Your task to perform on an android device: Add razer kraken to the cart on bestbuy, then select checkout. Image 0: 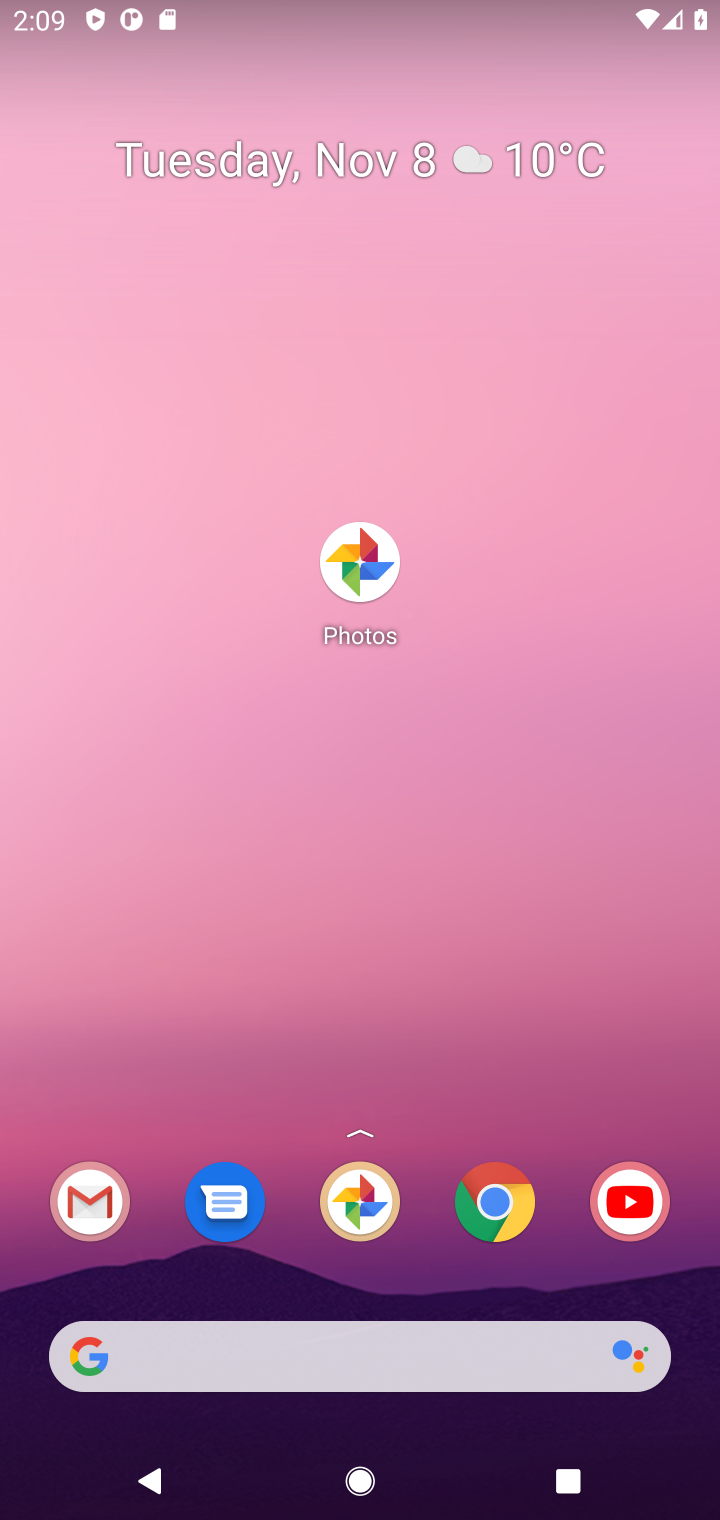
Step 0: drag from (421, 1188) to (267, 7)
Your task to perform on an android device: Add razer kraken to the cart on bestbuy, then select checkout. Image 1: 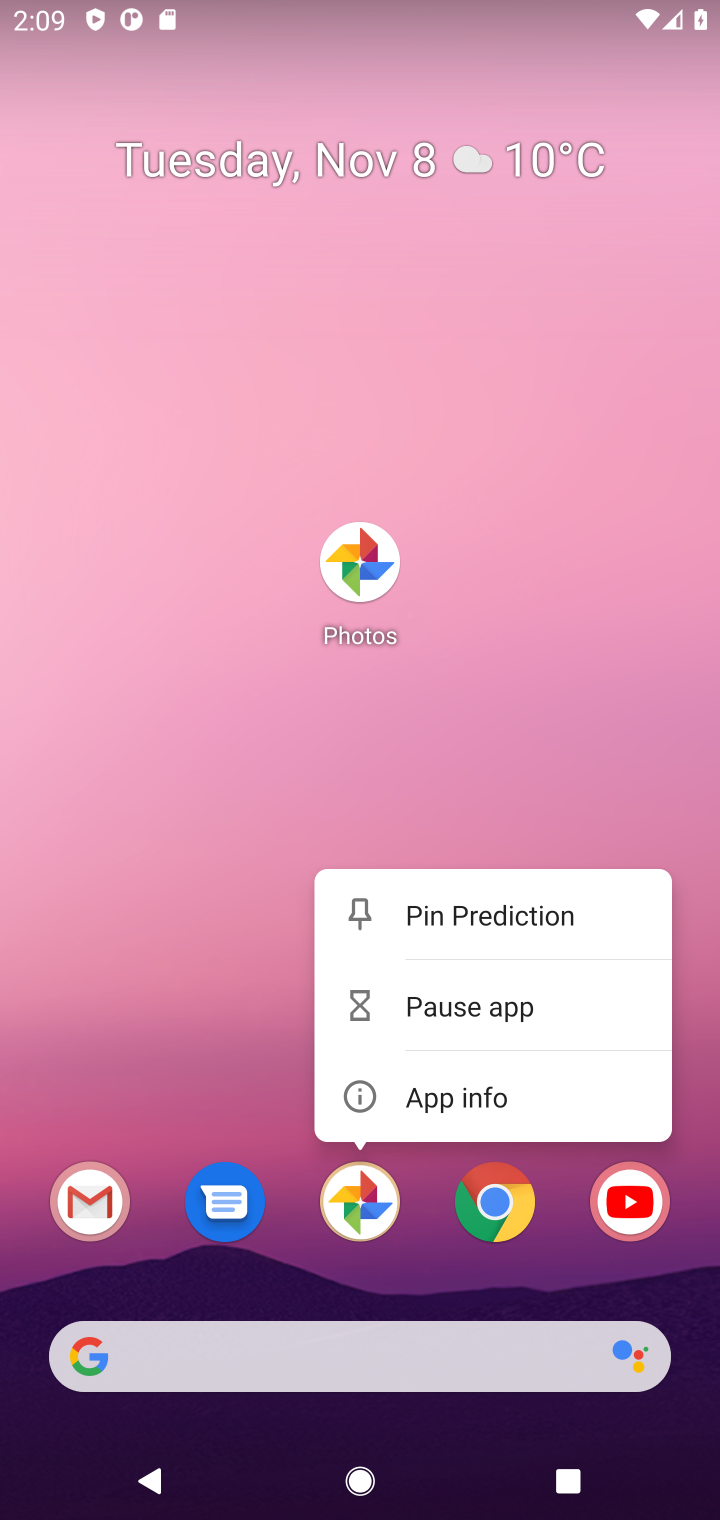
Step 1: click (140, 789)
Your task to perform on an android device: Add razer kraken to the cart on bestbuy, then select checkout. Image 2: 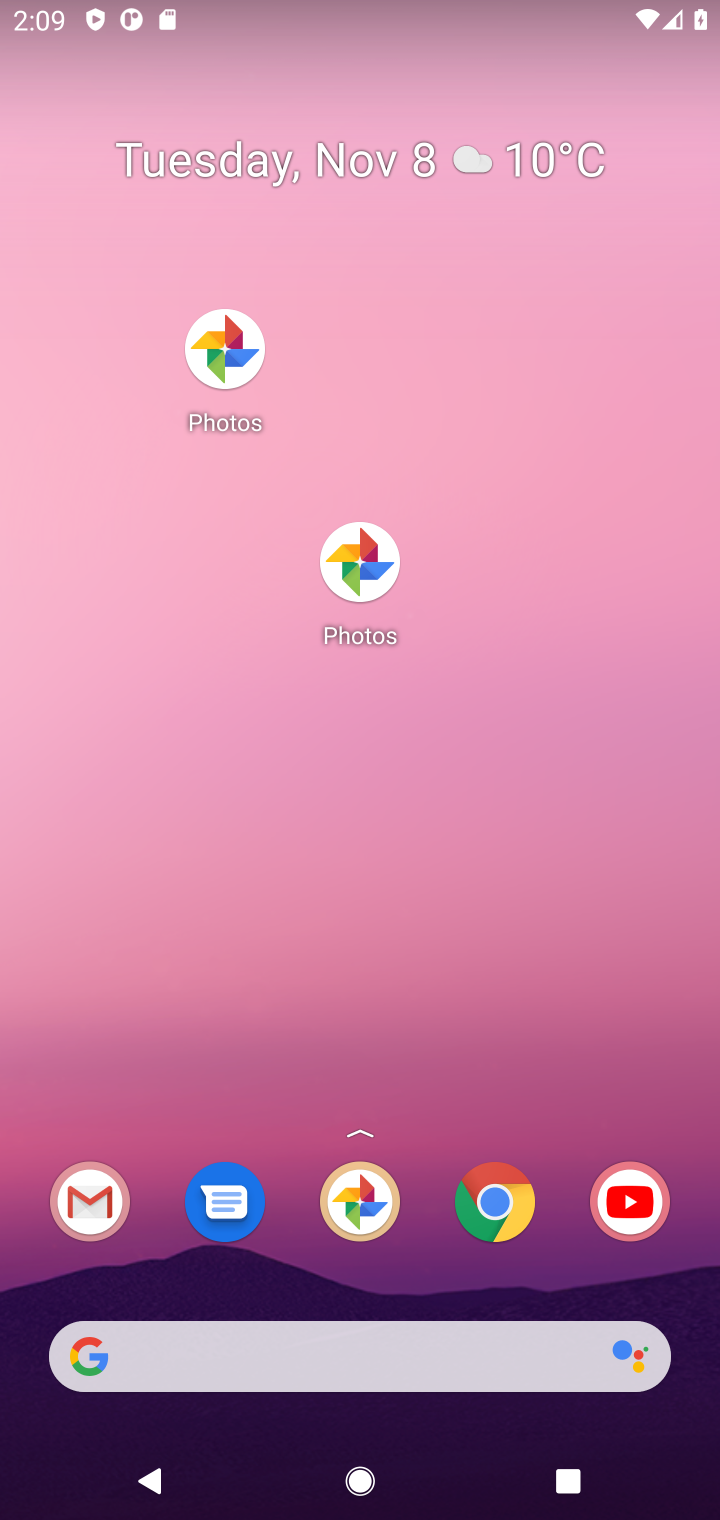
Step 2: drag from (367, 1188) to (531, 34)
Your task to perform on an android device: Add razer kraken to the cart on bestbuy, then select checkout. Image 3: 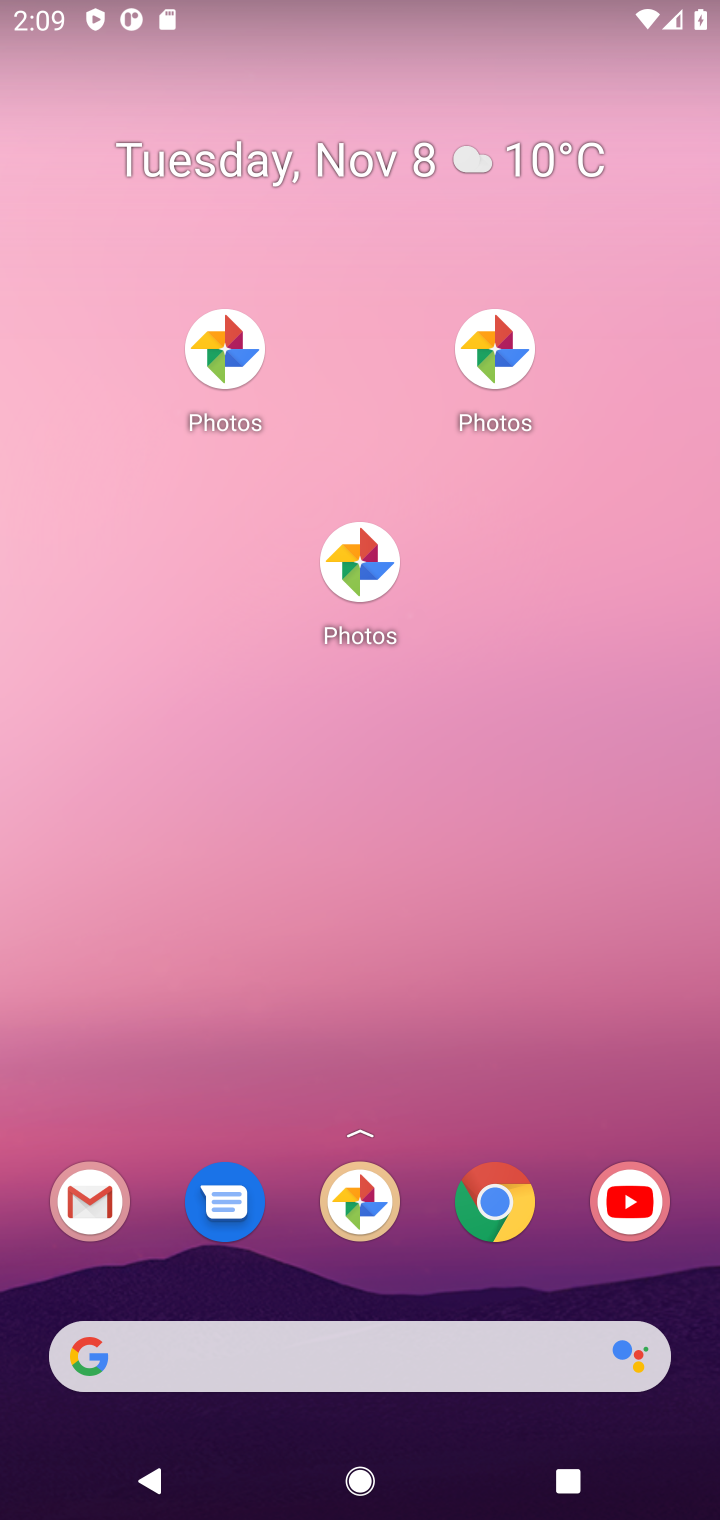
Step 3: drag from (443, 1226) to (422, 523)
Your task to perform on an android device: Add razer kraken to the cart on bestbuy, then select checkout. Image 4: 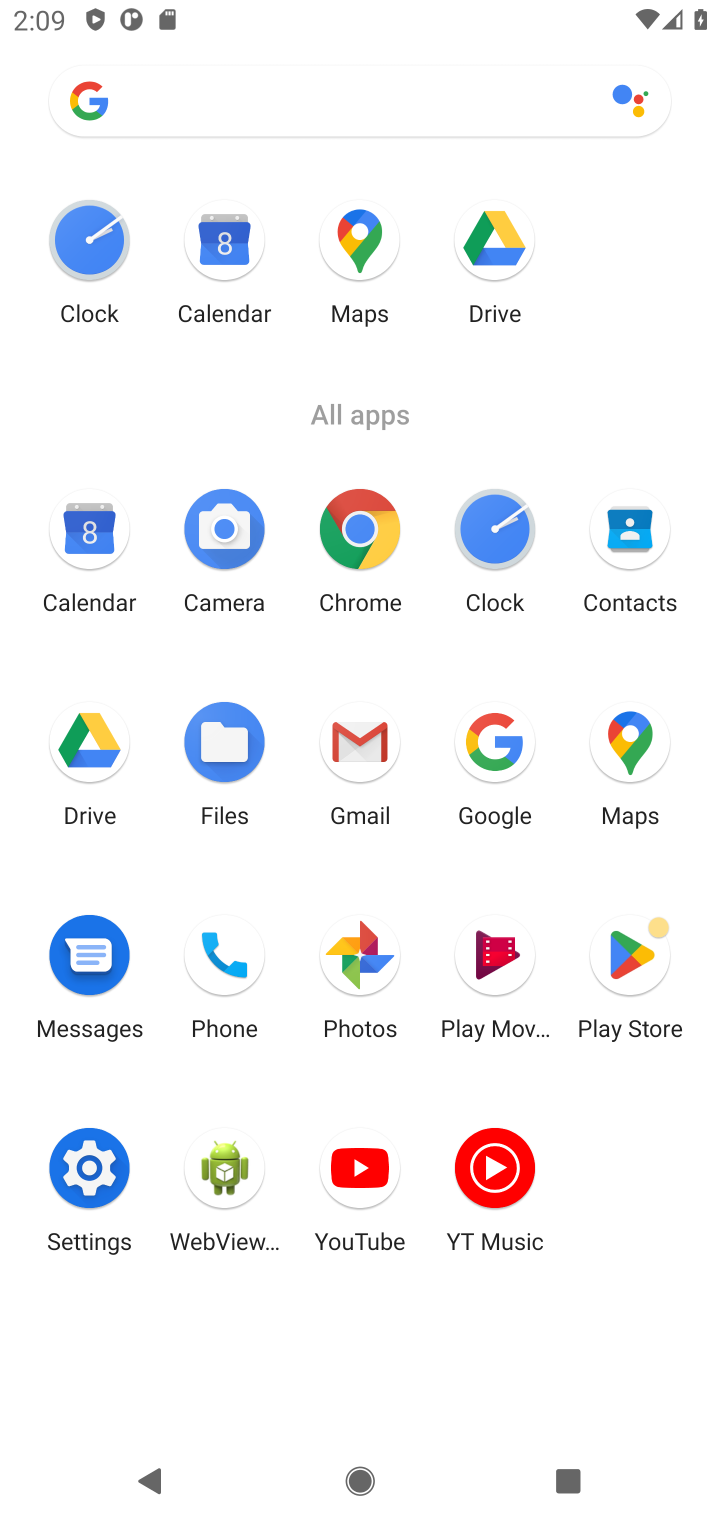
Step 4: click (505, 751)
Your task to perform on an android device: Add razer kraken to the cart on bestbuy, then select checkout. Image 5: 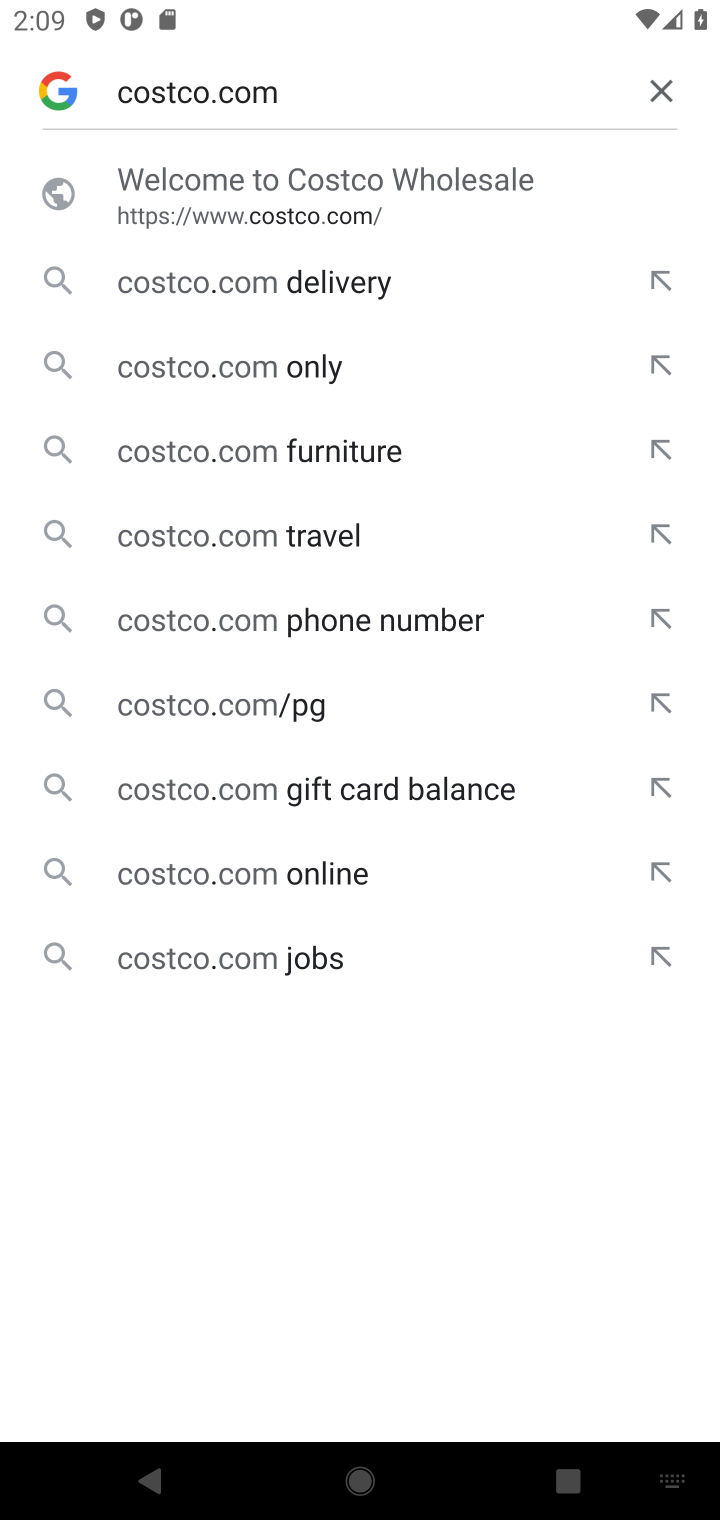
Step 5: click (678, 114)
Your task to perform on an android device: Add razer kraken to the cart on bestbuy, then select checkout. Image 6: 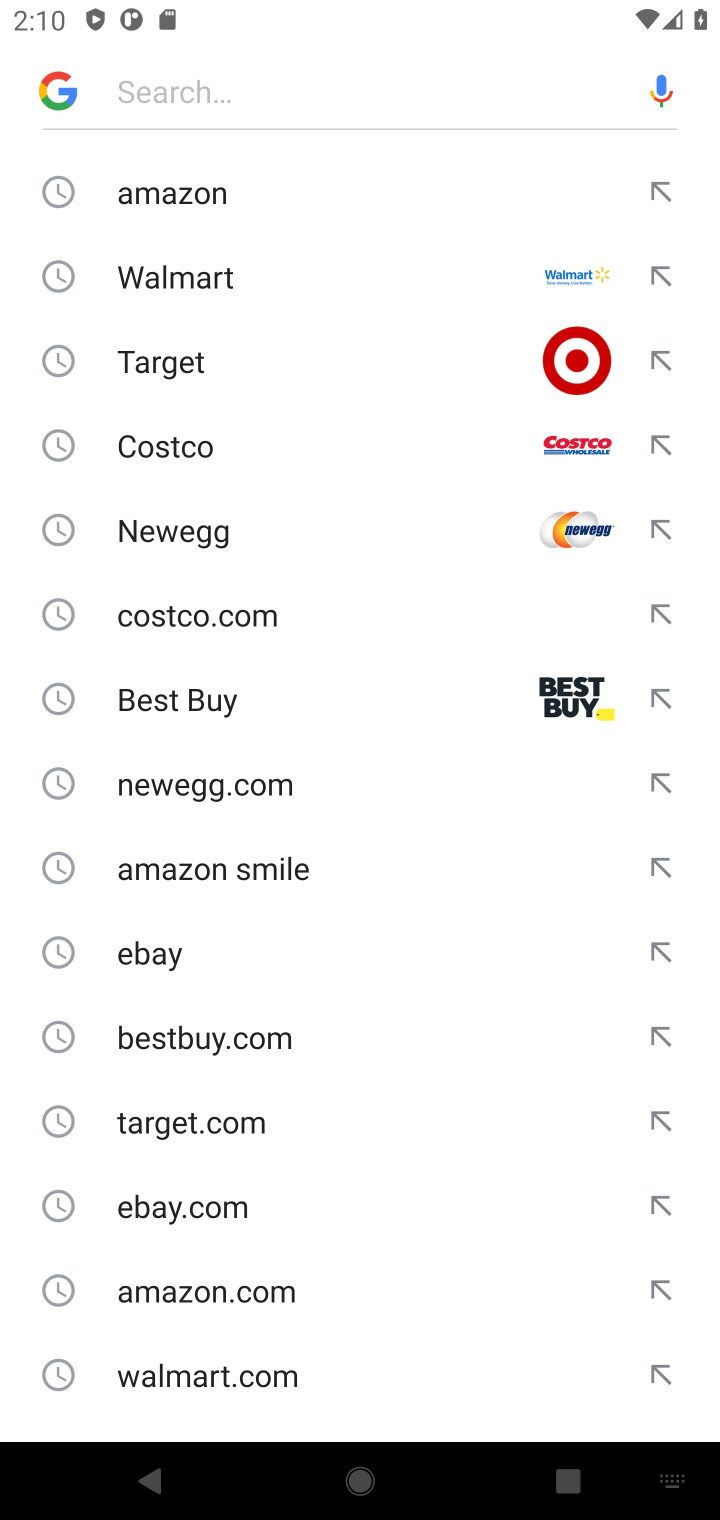
Step 6: type "bestbuy"
Your task to perform on an android device: Add razer kraken to the cart on bestbuy, then select checkout. Image 7: 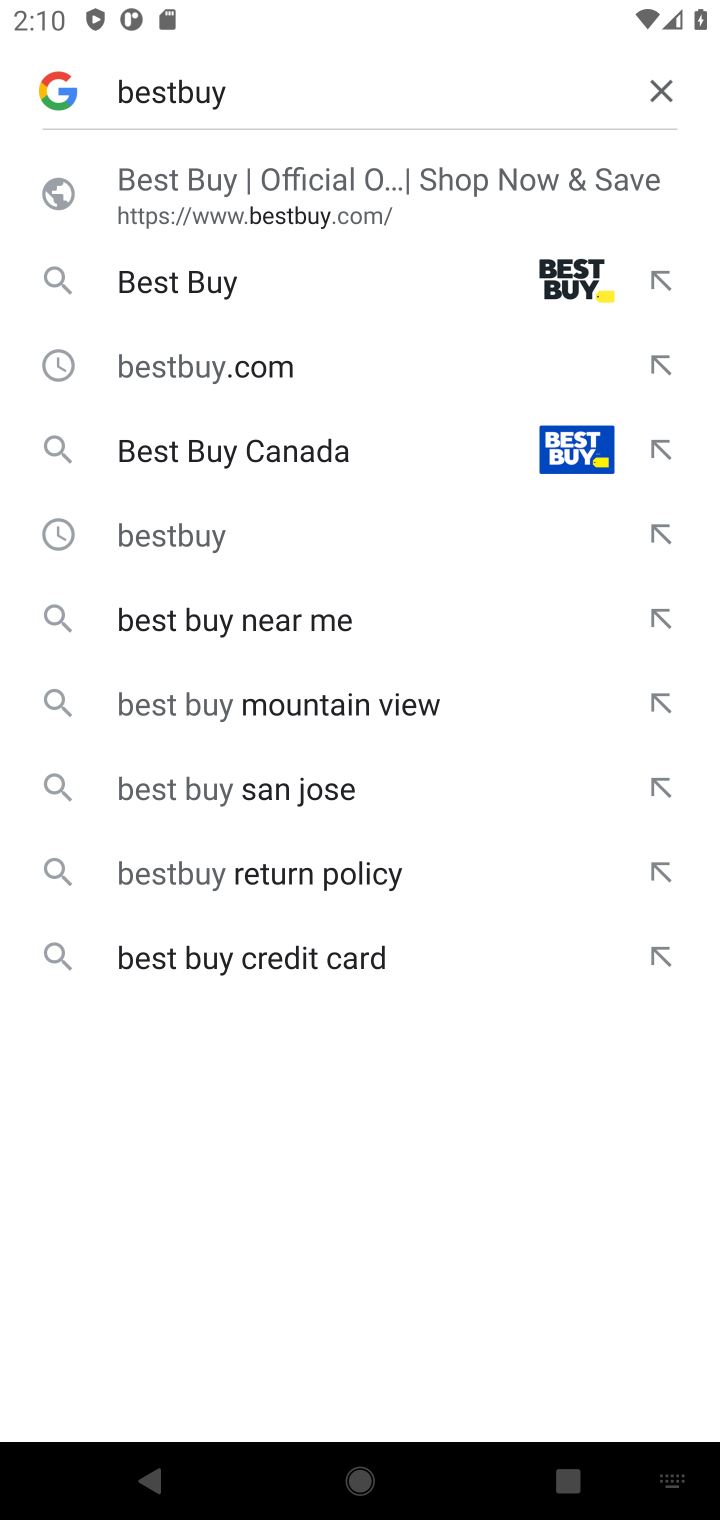
Step 7: click (392, 195)
Your task to perform on an android device: Add razer kraken to the cart on bestbuy, then select checkout. Image 8: 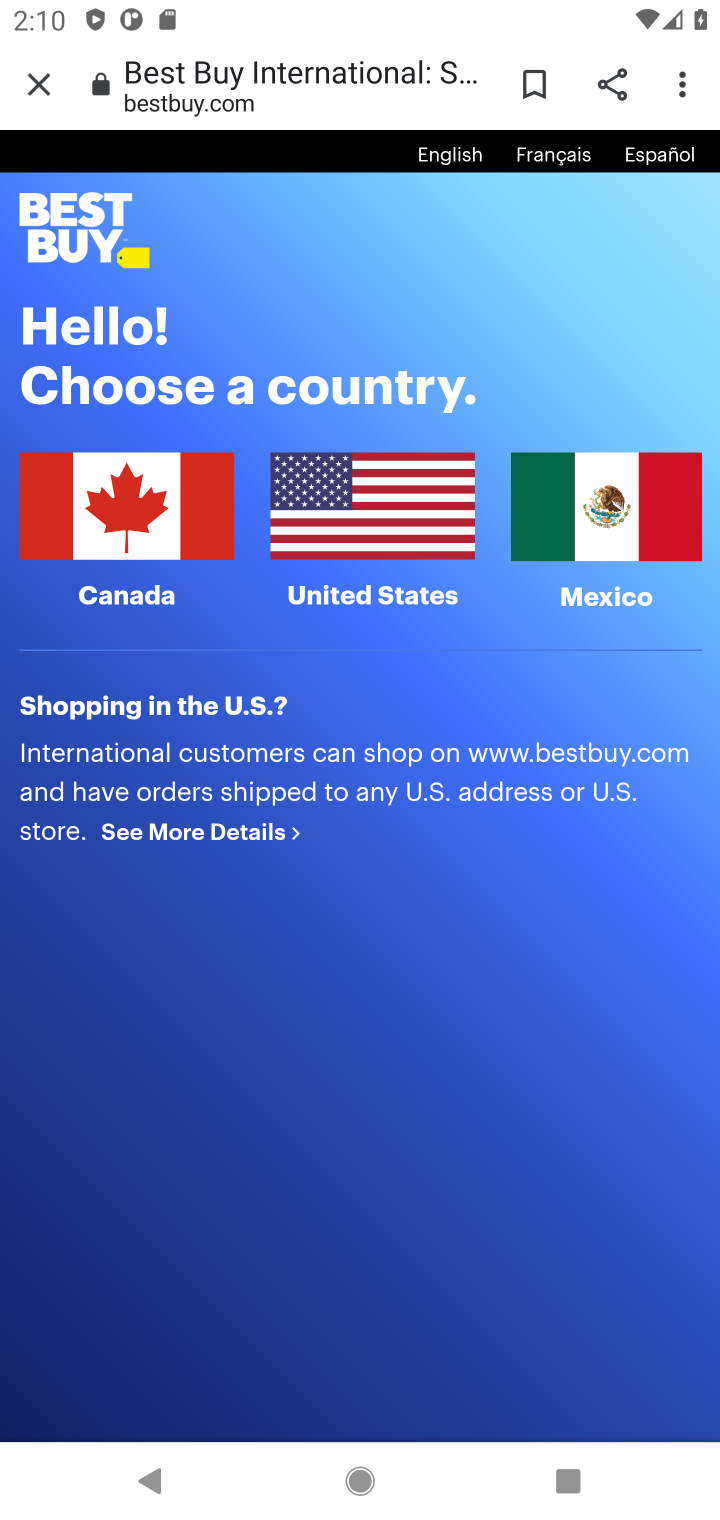
Step 8: click (411, 487)
Your task to perform on an android device: Add razer kraken to the cart on bestbuy, then select checkout. Image 9: 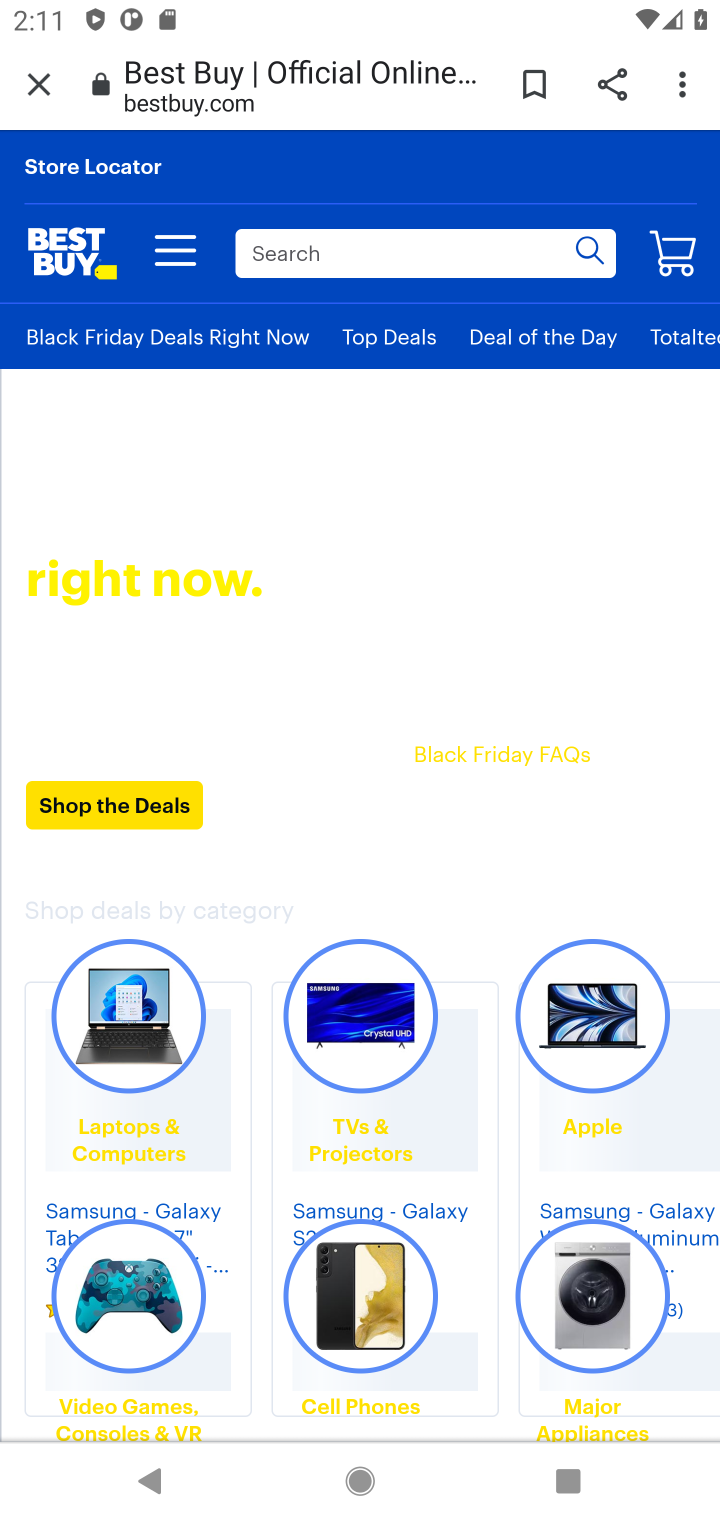
Step 9: click (524, 260)
Your task to perform on an android device: Add razer kraken to the cart on bestbuy, then select checkout. Image 10: 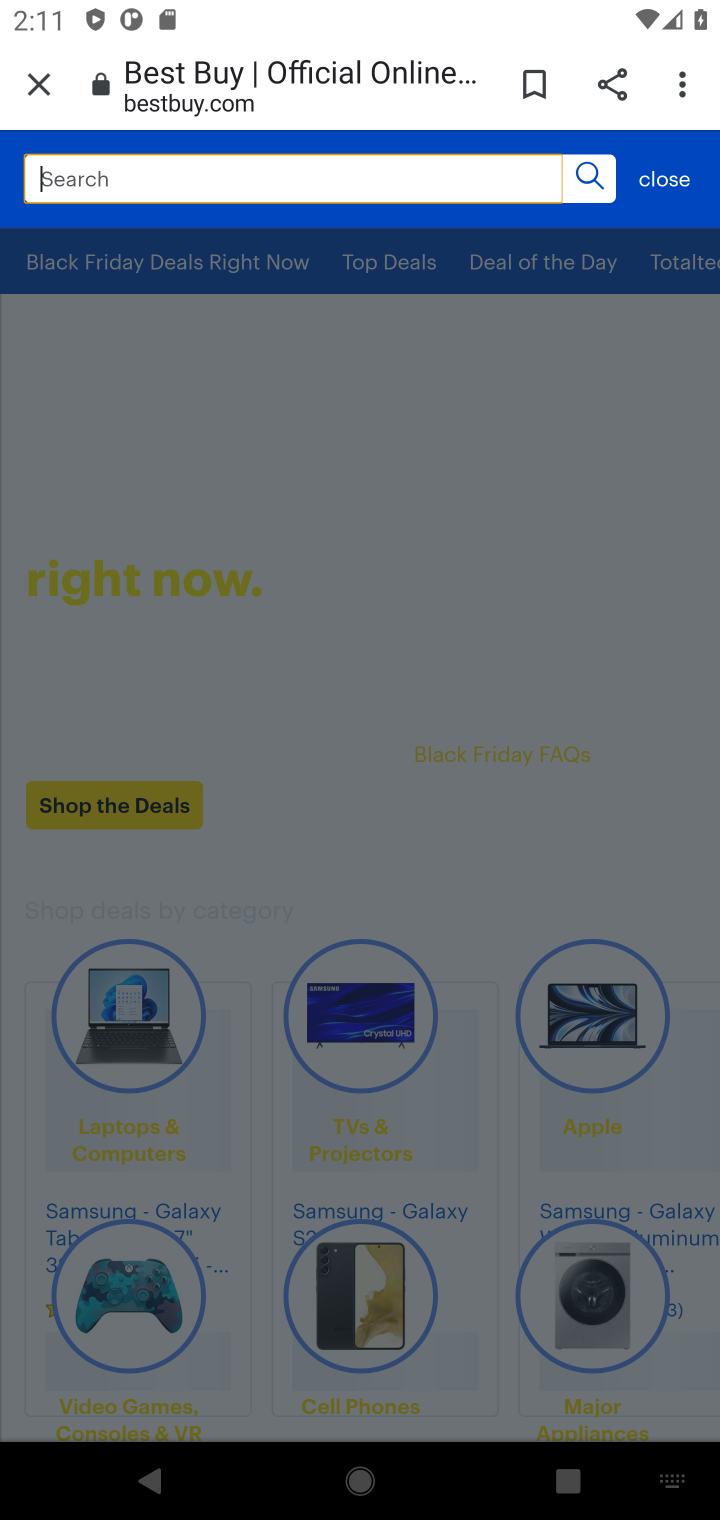
Step 10: type "razer kraken"
Your task to perform on an android device: Add razer kraken to the cart on bestbuy, then select checkout. Image 11: 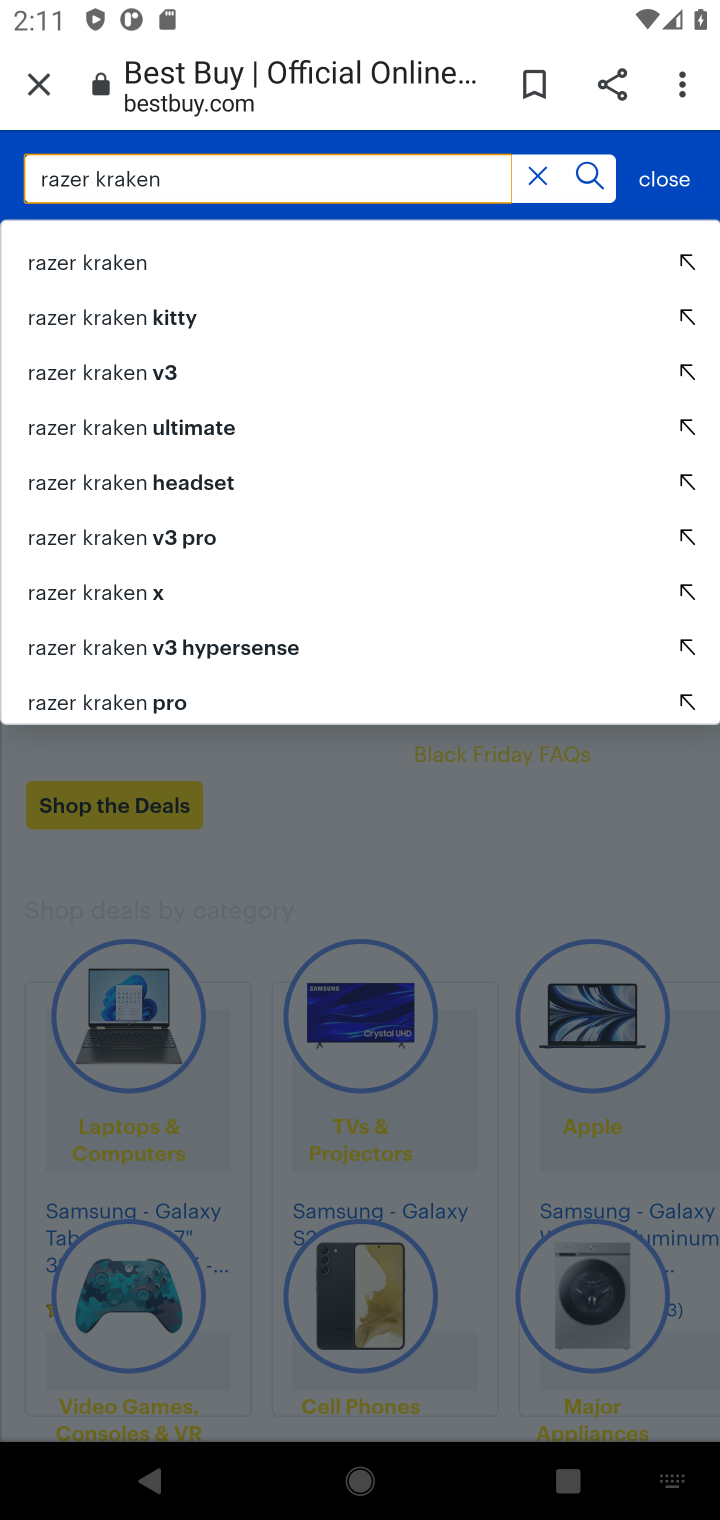
Step 11: click (587, 177)
Your task to perform on an android device: Add razer kraken to the cart on bestbuy, then select checkout. Image 12: 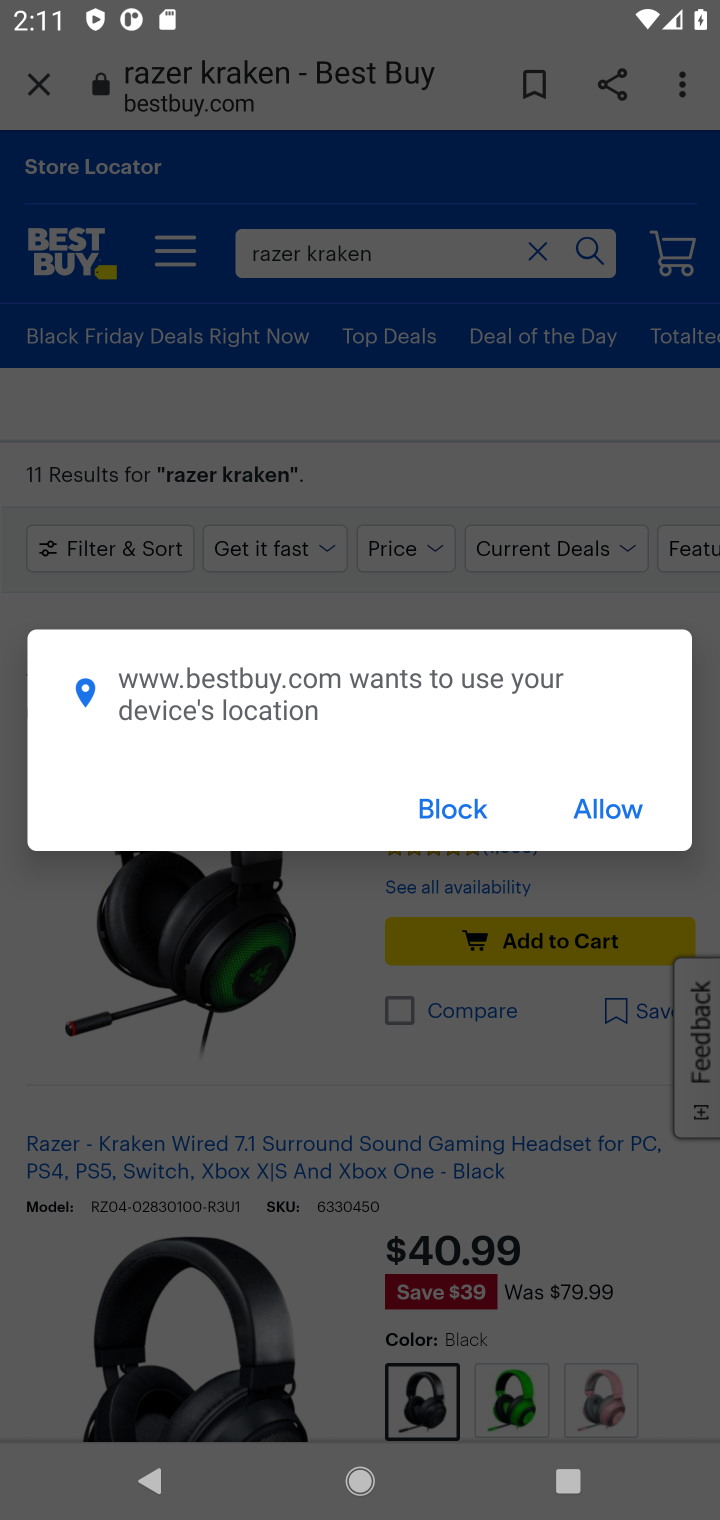
Step 12: click (421, 816)
Your task to perform on an android device: Add razer kraken to the cart on bestbuy, then select checkout. Image 13: 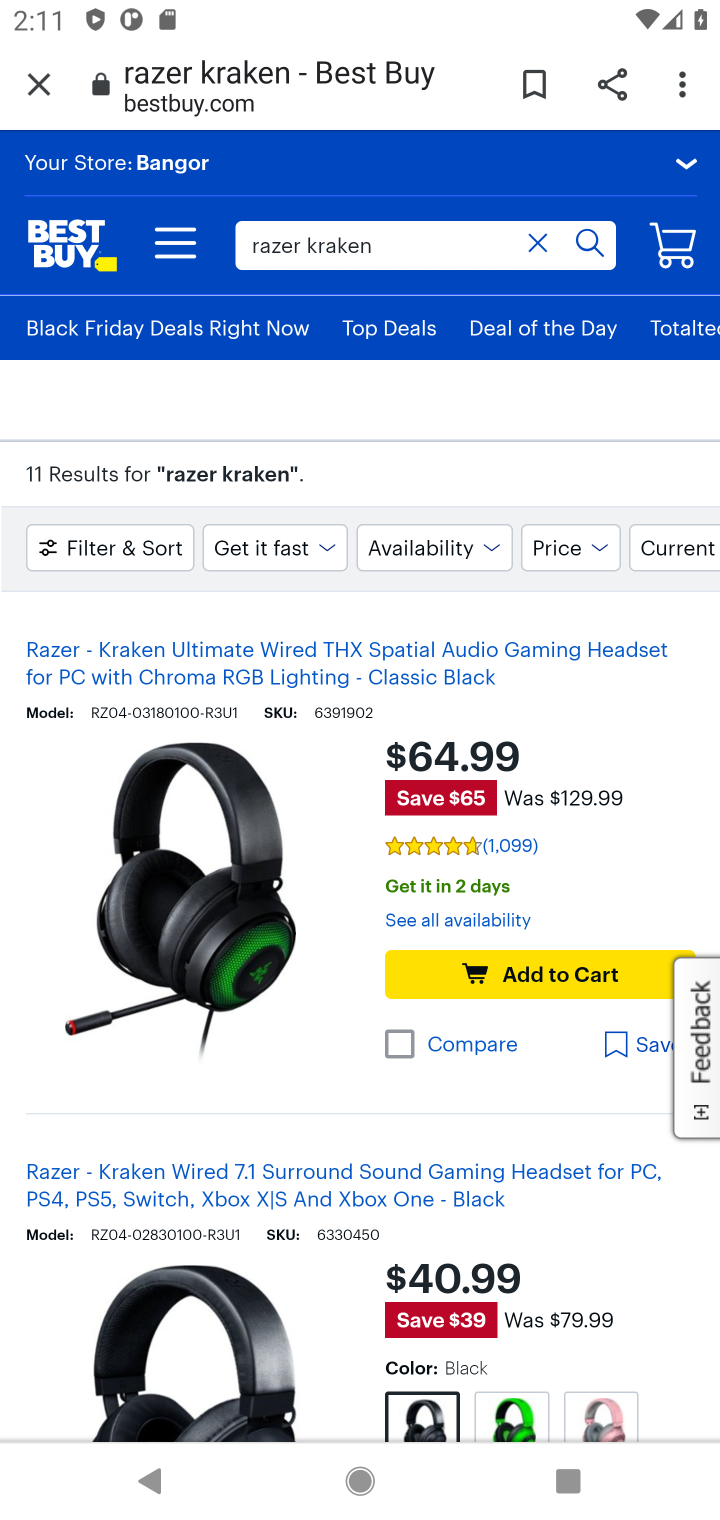
Step 13: click (497, 973)
Your task to perform on an android device: Add razer kraken to the cart on bestbuy, then select checkout. Image 14: 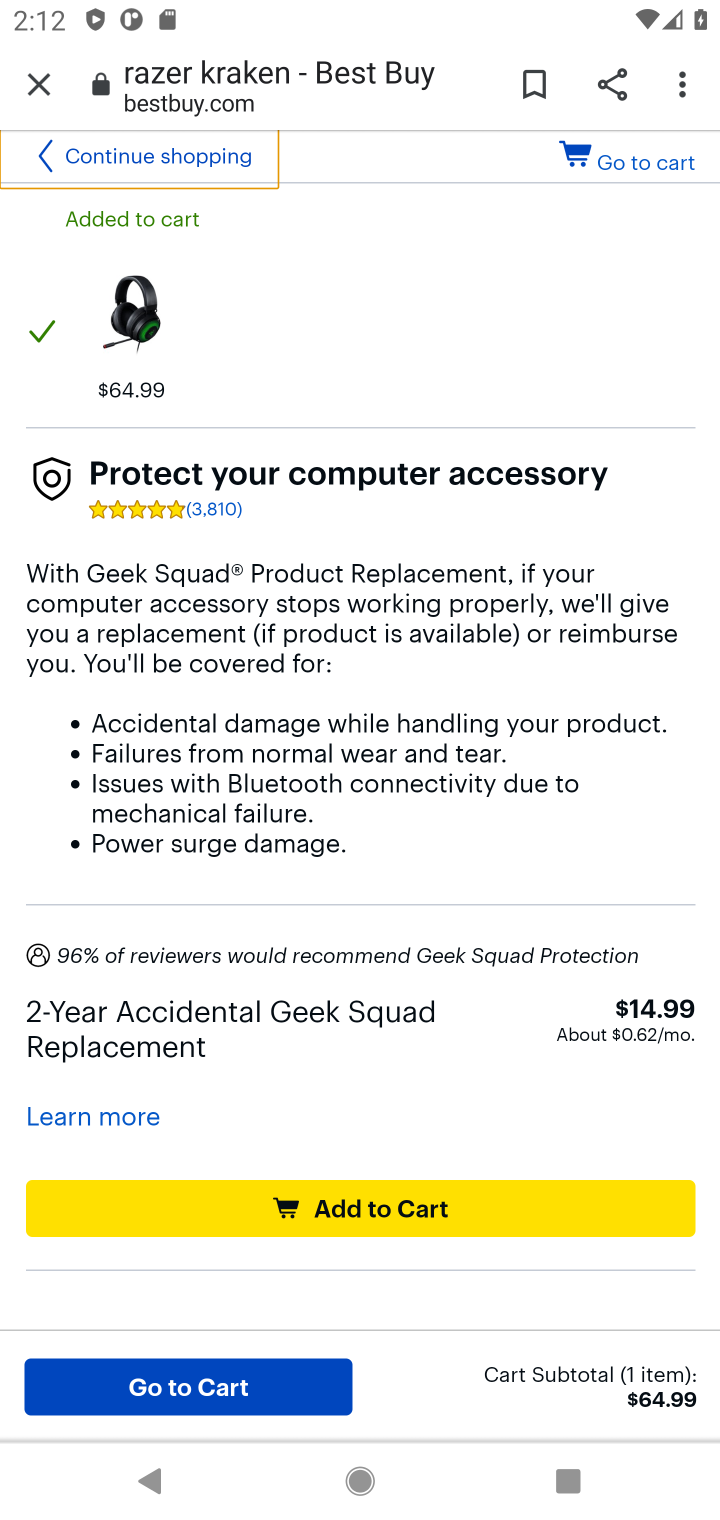
Step 14: click (615, 172)
Your task to perform on an android device: Add razer kraken to the cart on bestbuy, then select checkout. Image 15: 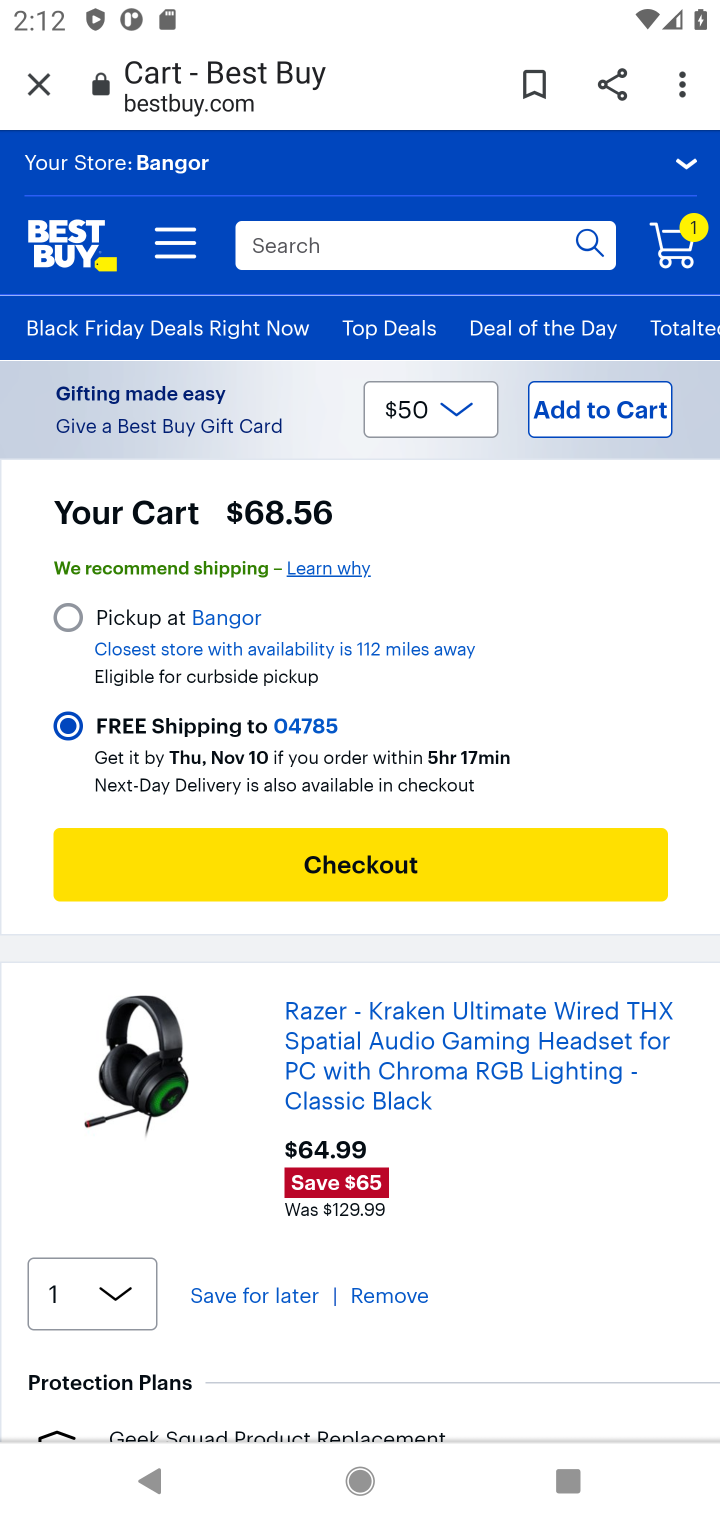
Step 15: click (383, 874)
Your task to perform on an android device: Add razer kraken to the cart on bestbuy, then select checkout. Image 16: 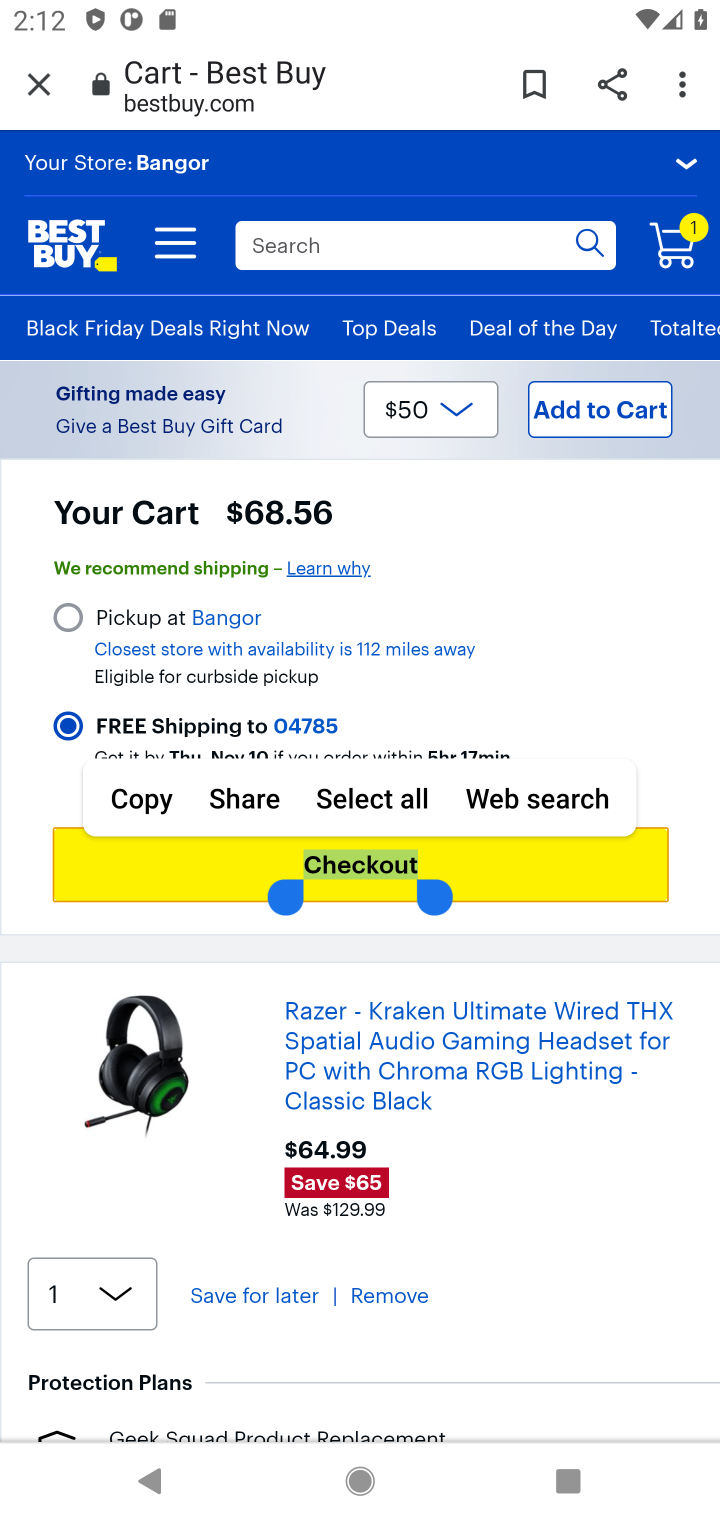
Step 16: click (610, 892)
Your task to perform on an android device: Add razer kraken to the cart on bestbuy, then select checkout. Image 17: 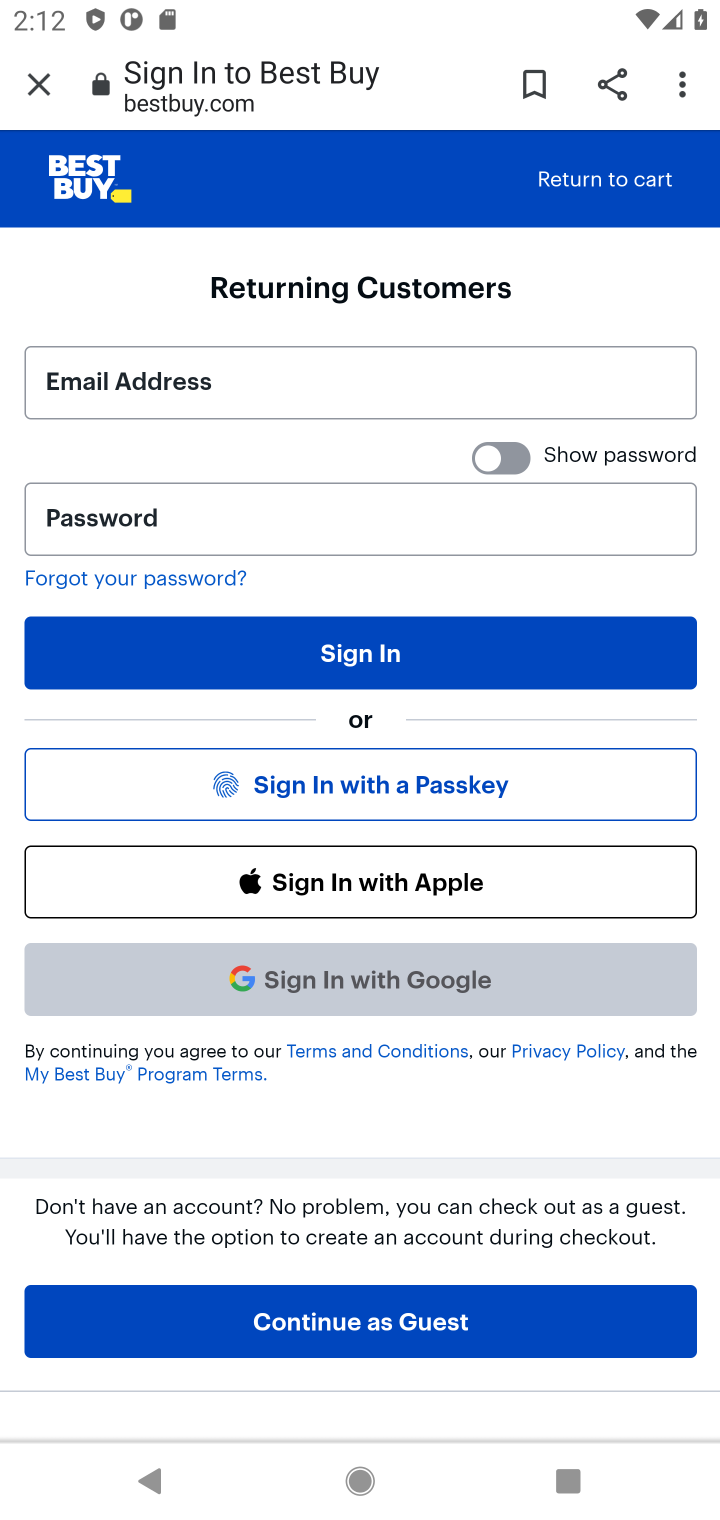
Step 17: task complete